Your task to perform on an android device: delete a single message in the gmail app Image 0: 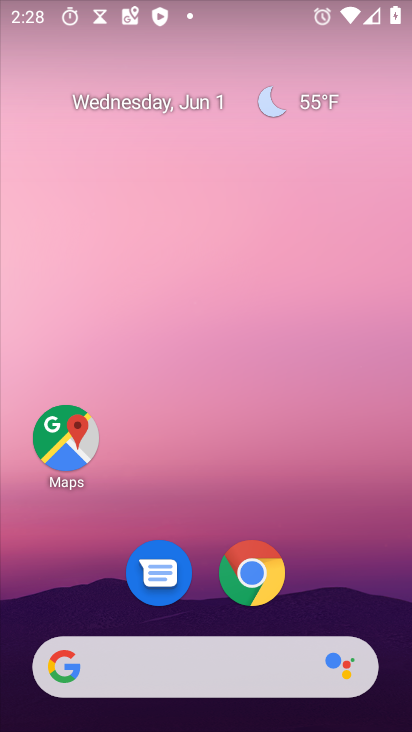
Step 0: drag from (337, 570) to (336, 83)
Your task to perform on an android device: delete a single message in the gmail app Image 1: 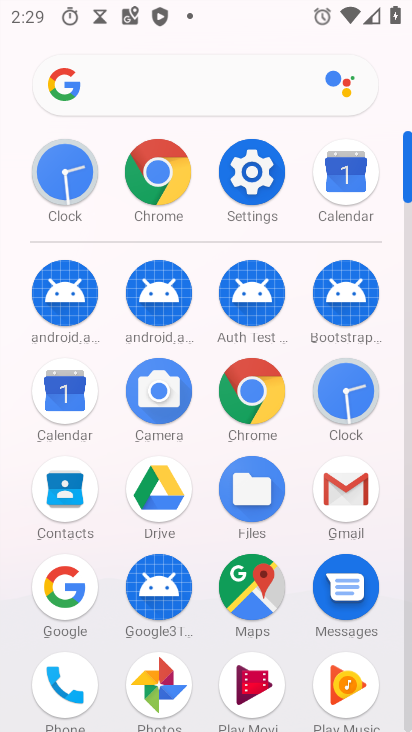
Step 1: click (351, 506)
Your task to perform on an android device: delete a single message in the gmail app Image 2: 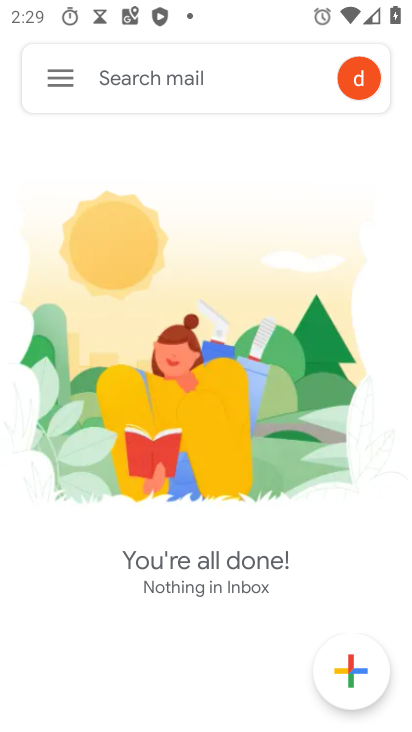
Step 2: task complete